Your task to perform on an android device: Open Google Maps Image 0: 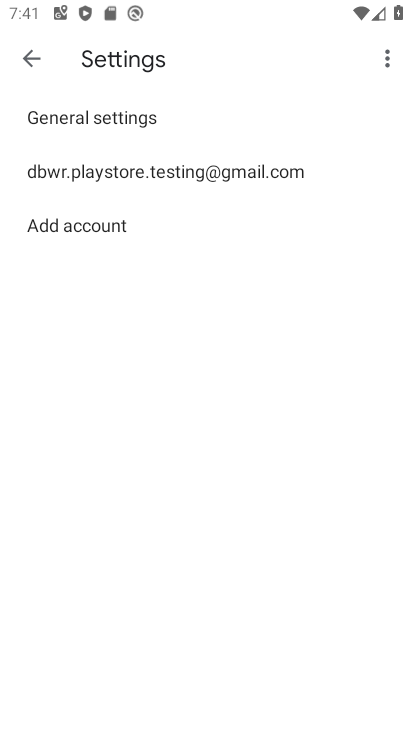
Step 0: press home button
Your task to perform on an android device: Open Google Maps Image 1: 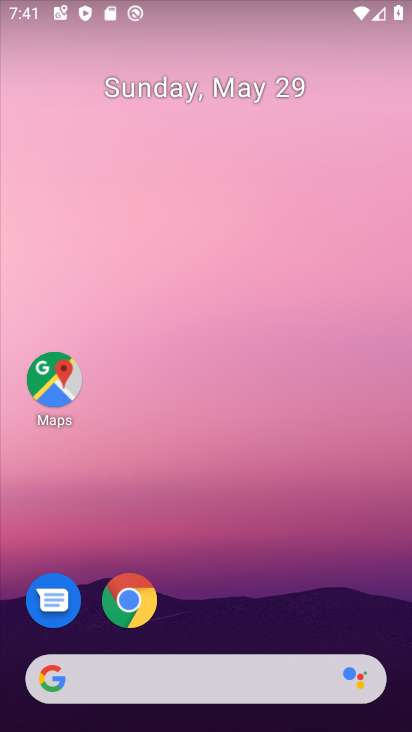
Step 1: click (58, 385)
Your task to perform on an android device: Open Google Maps Image 2: 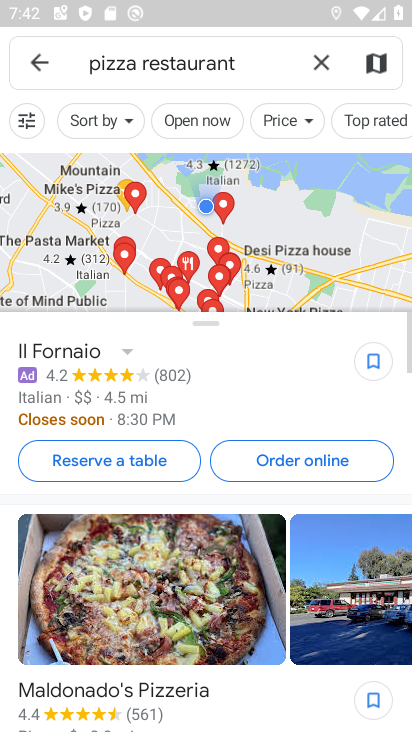
Step 2: click (53, 60)
Your task to perform on an android device: Open Google Maps Image 3: 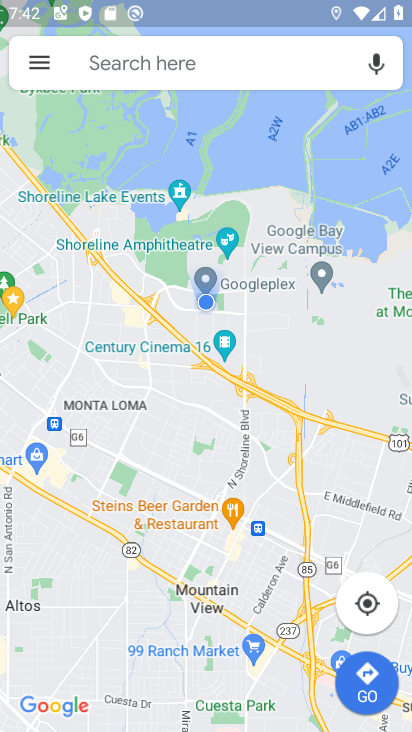
Step 3: task complete